Your task to perform on an android device: Open Google Maps and go to "Timeline" Image 0: 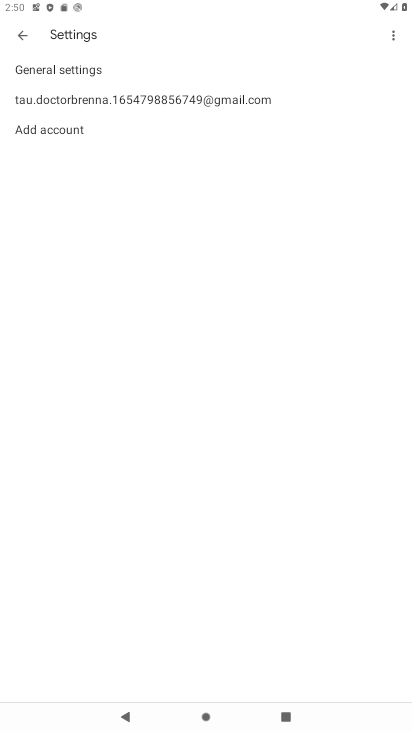
Step 0: press home button
Your task to perform on an android device: Open Google Maps and go to "Timeline" Image 1: 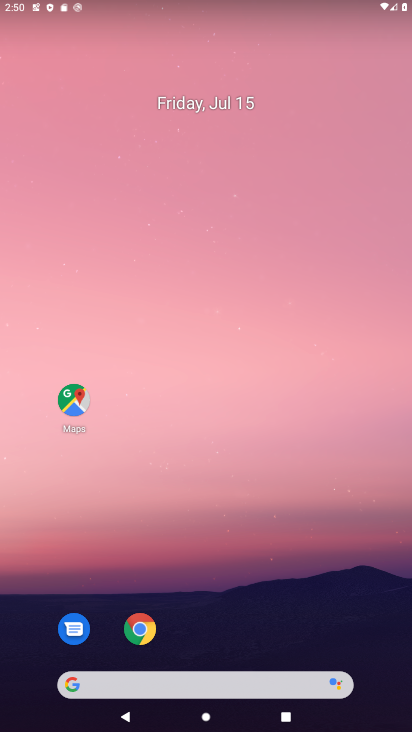
Step 1: drag from (212, 667) to (375, 382)
Your task to perform on an android device: Open Google Maps and go to "Timeline" Image 2: 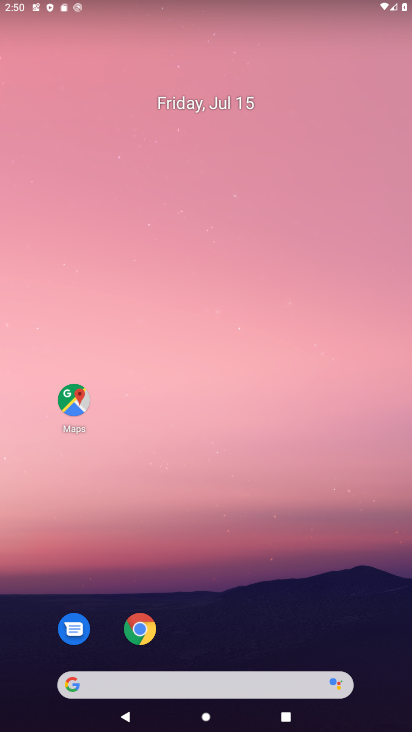
Step 2: drag from (223, 658) to (175, 55)
Your task to perform on an android device: Open Google Maps and go to "Timeline" Image 3: 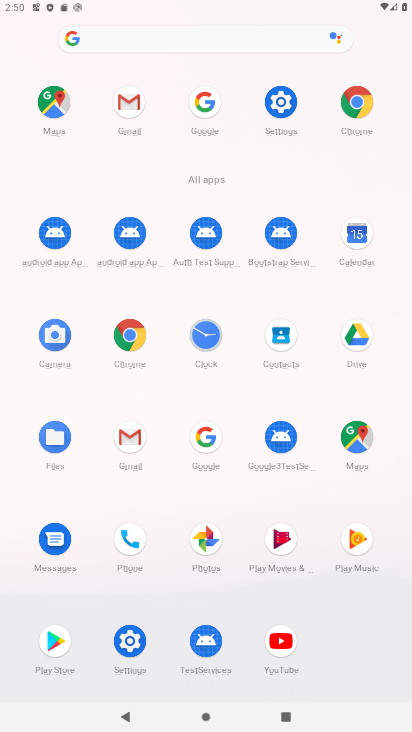
Step 3: click (363, 438)
Your task to perform on an android device: Open Google Maps and go to "Timeline" Image 4: 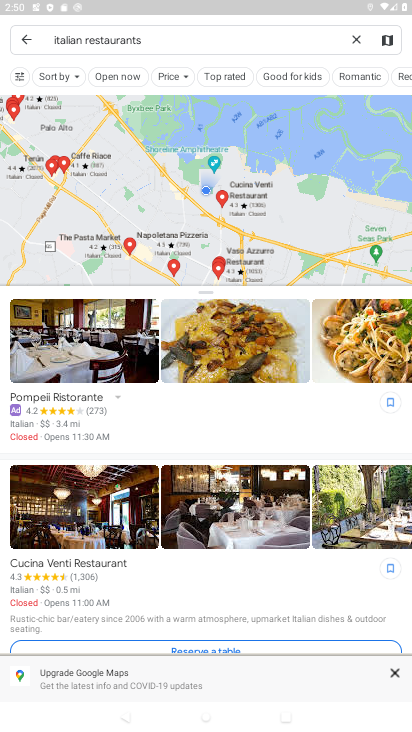
Step 4: click (25, 39)
Your task to perform on an android device: Open Google Maps and go to "Timeline" Image 5: 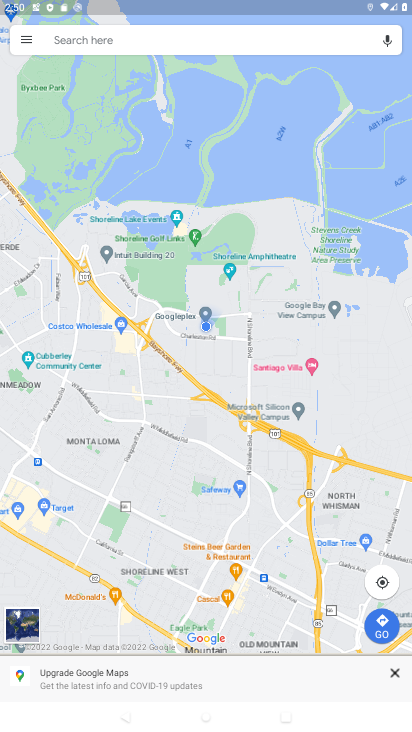
Step 5: click (31, 31)
Your task to perform on an android device: Open Google Maps and go to "Timeline" Image 6: 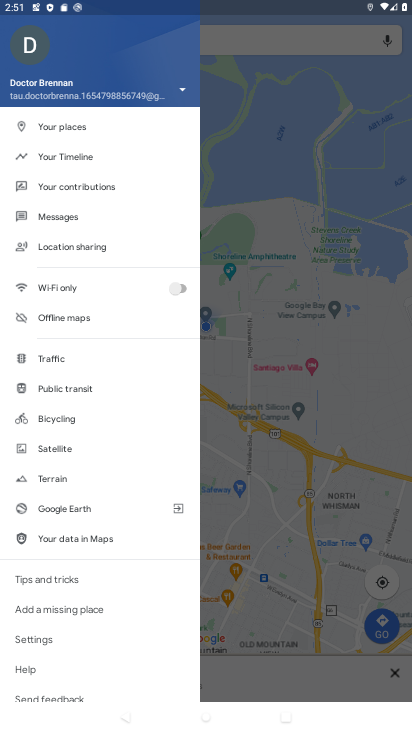
Step 6: click (53, 151)
Your task to perform on an android device: Open Google Maps and go to "Timeline" Image 7: 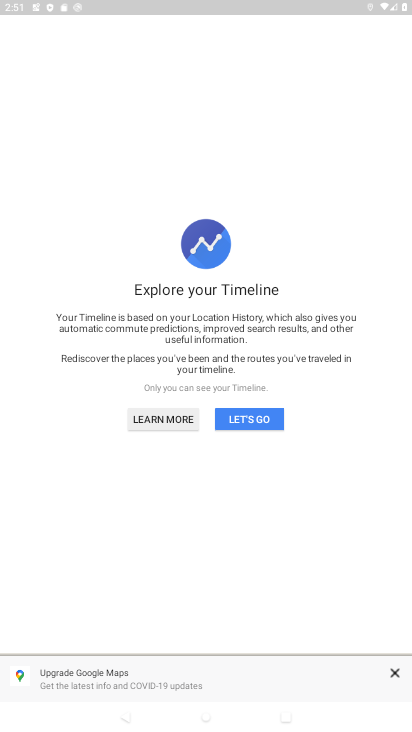
Step 7: task complete